Your task to perform on an android device: Go to wifi settings Image 0: 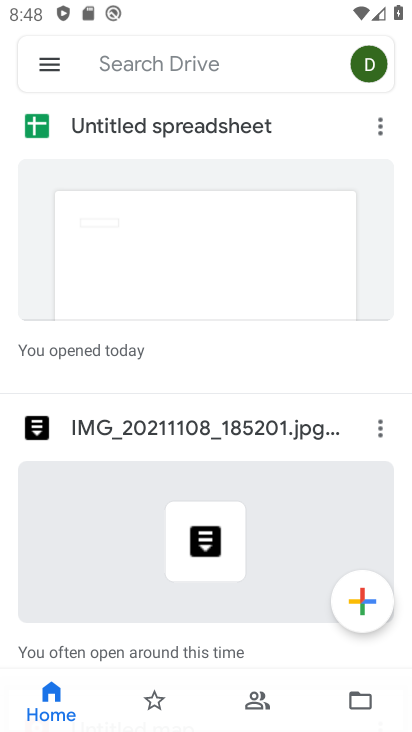
Step 0: press home button
Your task to perform on an android device: Go to wifi settings Image 1: 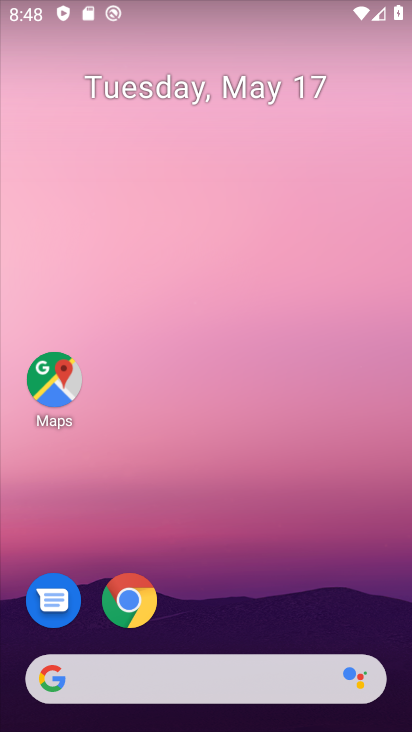
Step 1: drag from (300, 573) to (246, 132)
Your task to perform on an android device: Go to wifi settings Image 2: 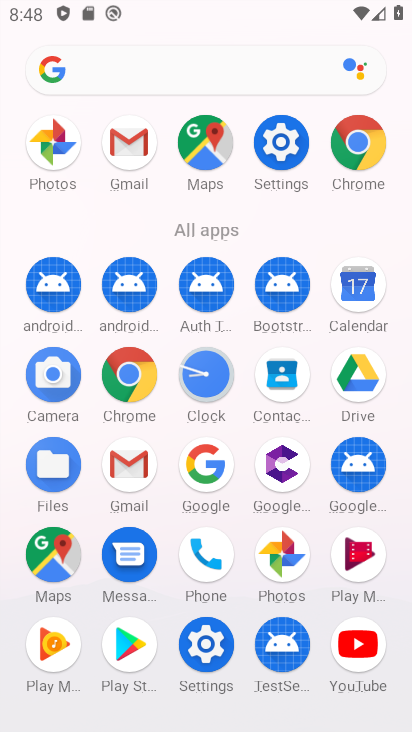
Step 2: click (204, 633)
Your task to perform on an android device: Go to wifi settings Image 3: 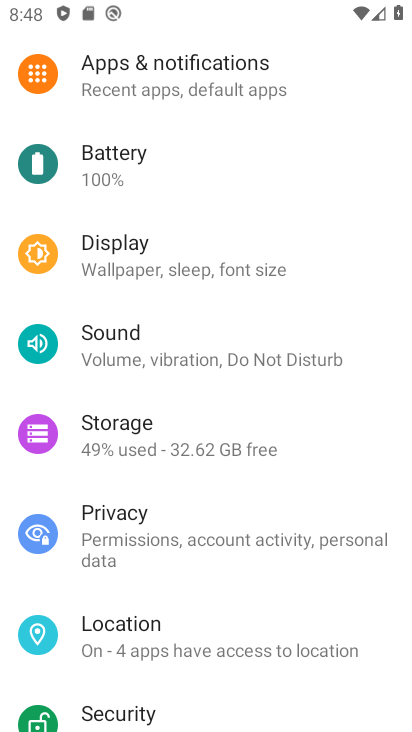
Step 3: drag from (285, 183) to (281, 541)
Your task to perform on an android device: Go to wifi settings Image 4: 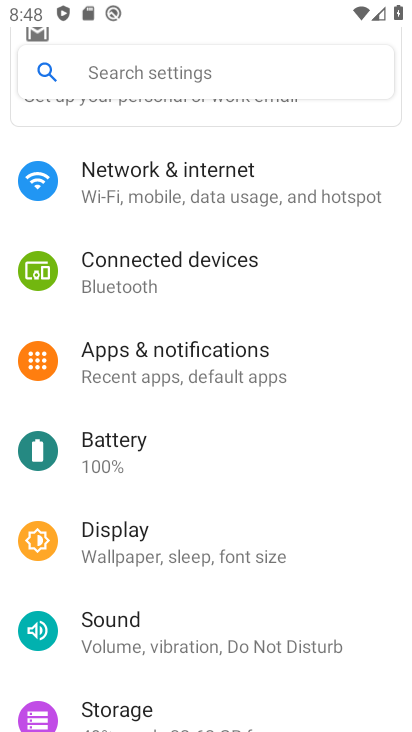
Step 4: click (228, 180)
Your task to perform on an android device: Go to wifi settings Image 5: 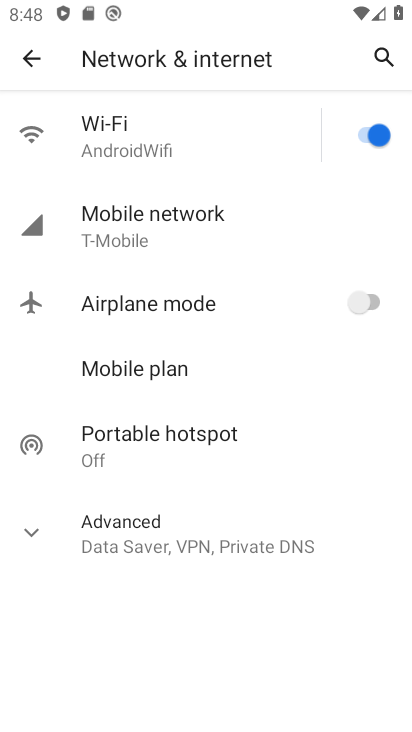
Step 5: click (154, 131)
Your task to perform on an android device: Go to wifi settings Image 6: 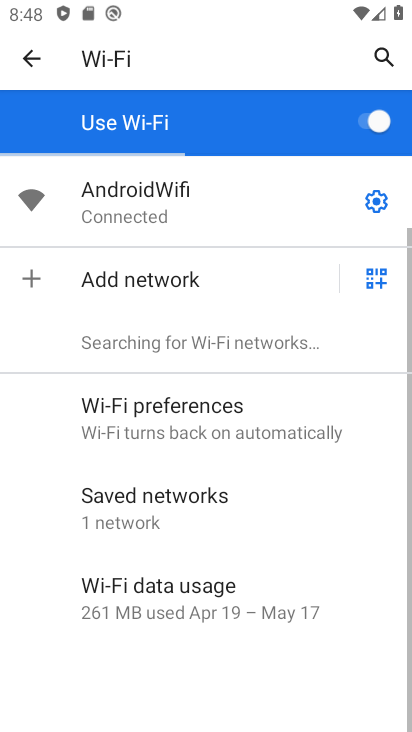
Step 6: task complete